Your task to perform on an android device: check data usage Image 0: 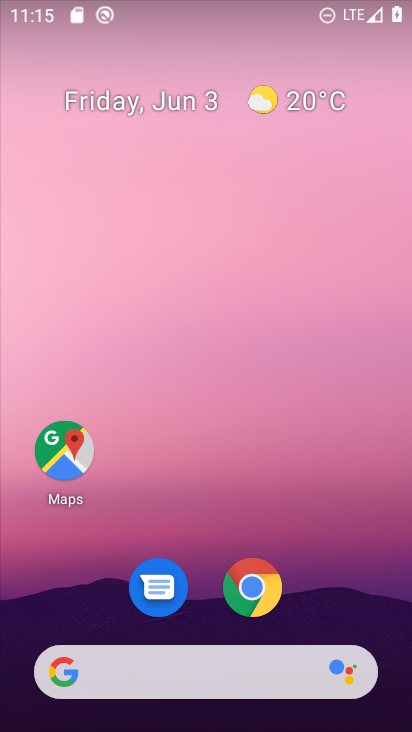
Step 0: drag from (195, 129) to (101, 4)
Your task to perform on an android device: check data usage Image 1: 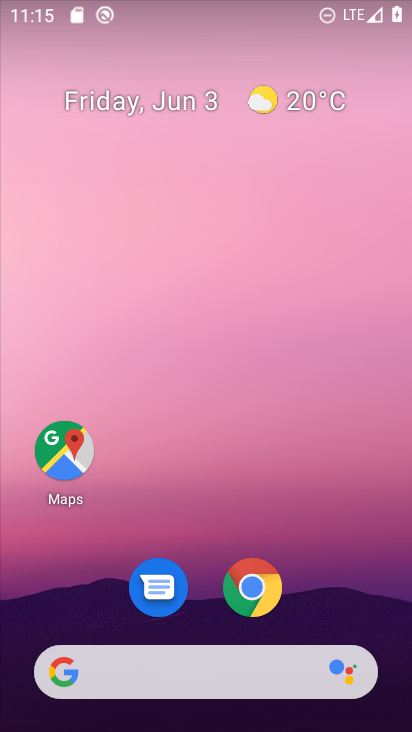
Step 1: drag from (362, 512) to (253, 3)
Your task to perform on an android device: check data usage Image 2: 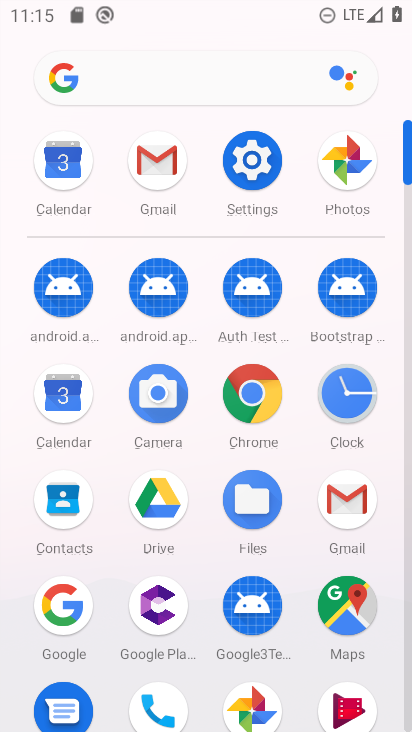
Step 2: click (241, 169)
Your task to perform on an android device: check data usage Image 3: 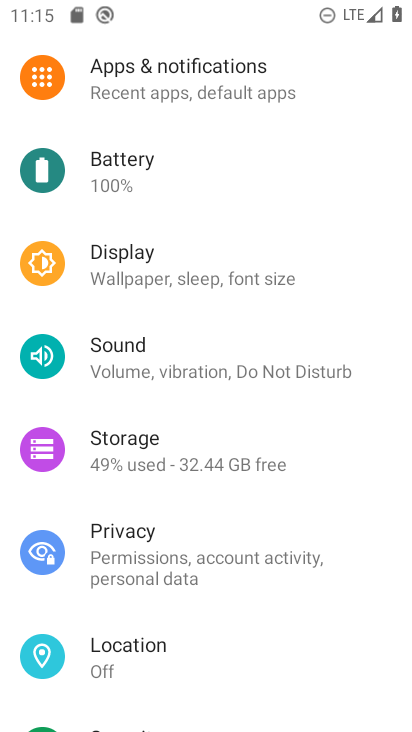
Step 3: drag from (218, 86) to (266, 688)
Your task to perform on an android device: check data usage Image 4: 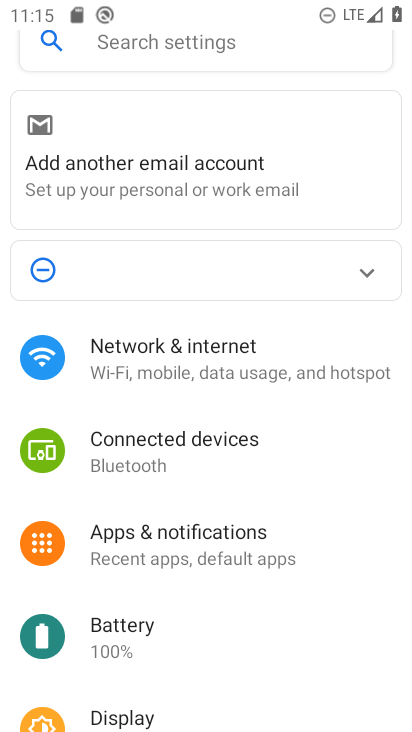
Step 4: click (200, 395)
Your task to perform on an android device: check data usage Image 5: 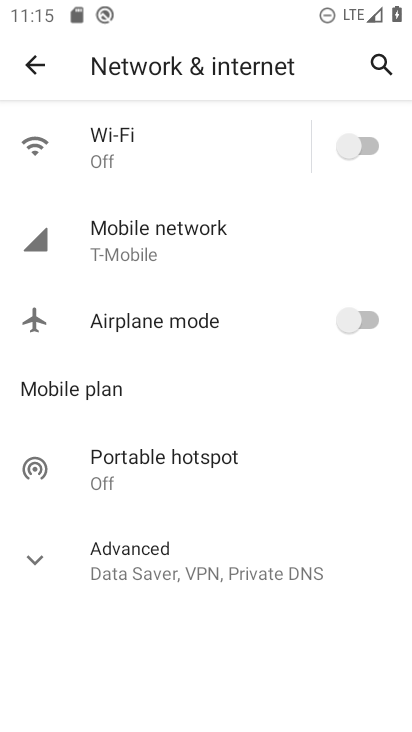
Step 5: click (165, 226)
Your task to perform on an android device: check data usage Image 6: 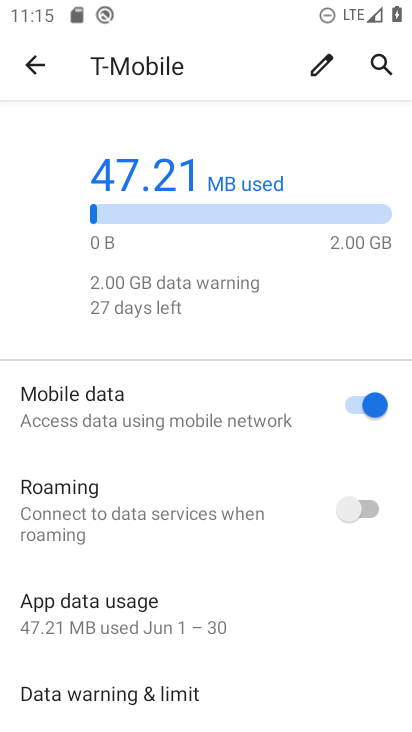
Step 6: task complete